Your task to perform on an android device: clear history in the chrome app Image 0: 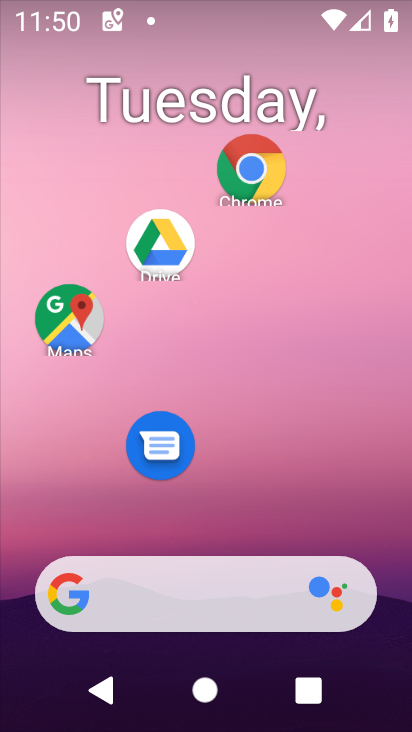
Step 0: click (261, 163)
Your task to perform on an android device: clear history in the chrome app Image 1: 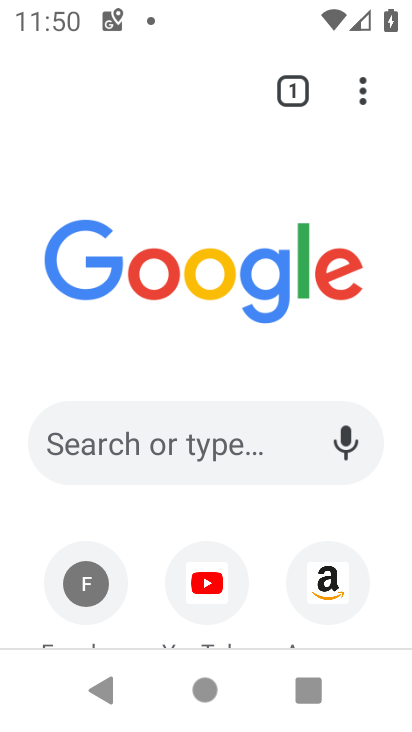
Step 1: click (360, 94)
Your task to perform on an android device: clear history in the chrome app Image 2: 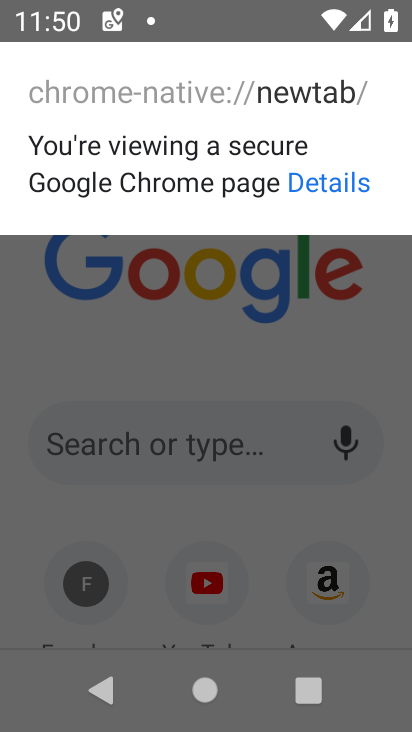
Step 2: click (330, 268)
Your task to perform on an android device: clear history in the chrome app Image 3: 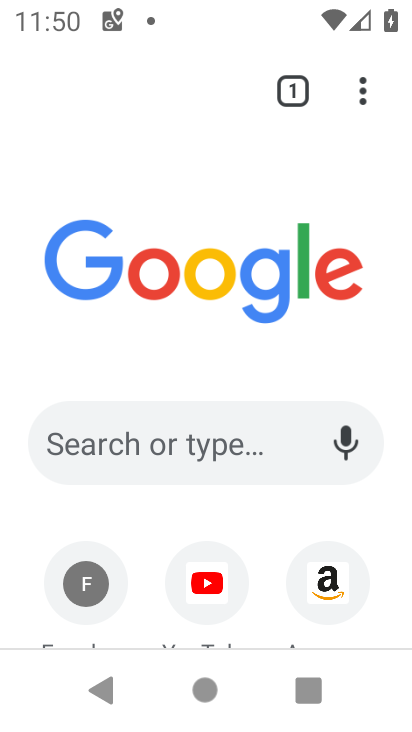
Step 3: click (366, 92)
Your task to perform on an android device: clear history in the chrome app Image 4: 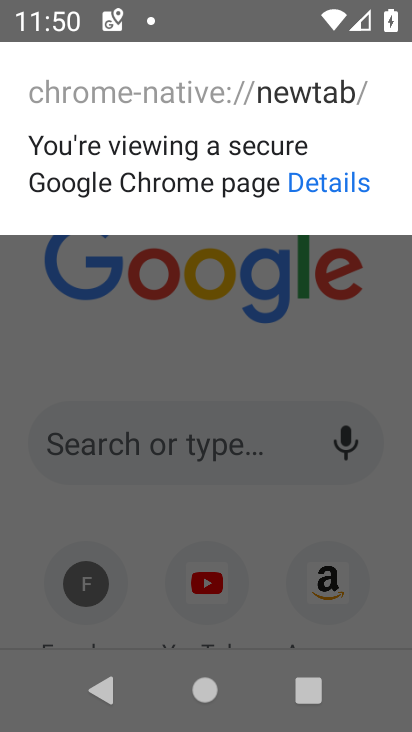
Step 4: click (283, 346)
Your task to perform on an android device: clear history in the chrome app Image 5: 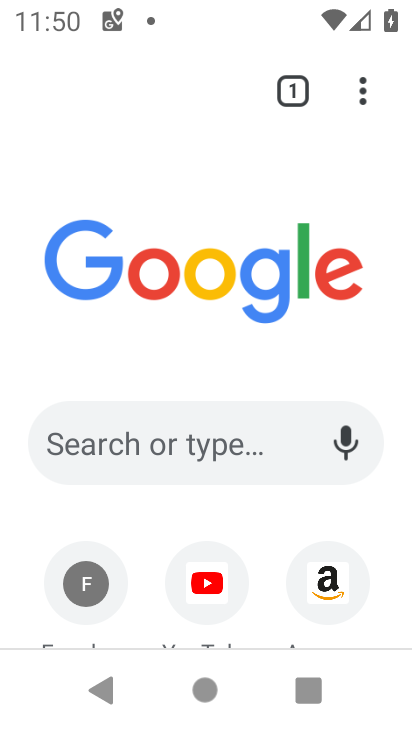
Step 5: task complete